Your task to perform on an android device: turn on improve location accuracy Image 0: 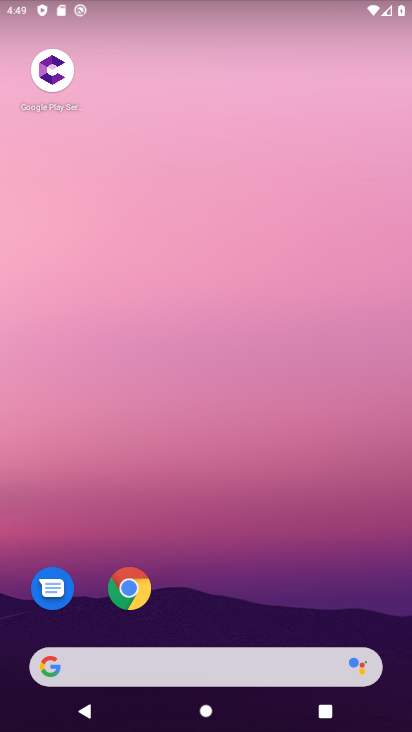
Step 0: drag from (253, 622) to (180, 97)
Your task to perform on an android device: turn on improve location accuracy Image 1: 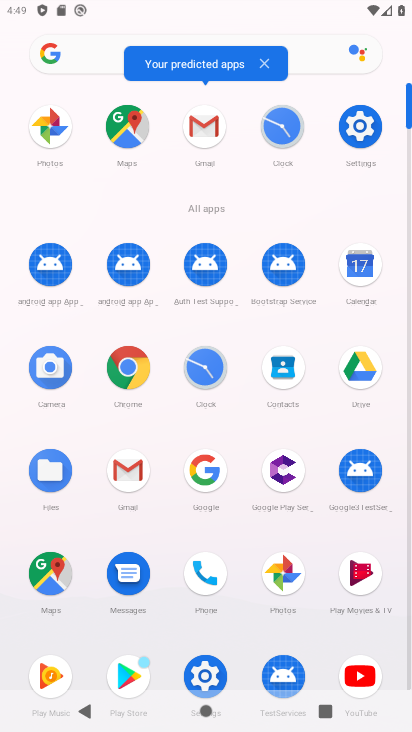
Step 1: click (377, 144)
Your task to perform on an android device: turn on improve location accuracy Image 2: 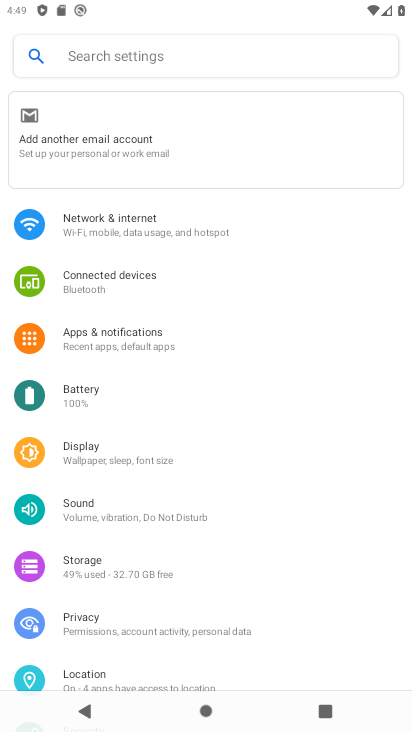
Step 2: click (232, 687)
Your task to perform on an android device: turn on improve location accuracy Image 3: 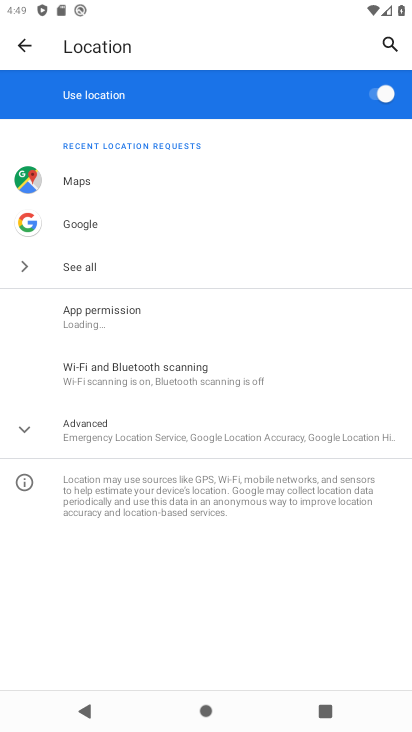
Step 3: click (199, 431)
Your task to perform on an android device: turn on improve location accuracy Image 4: 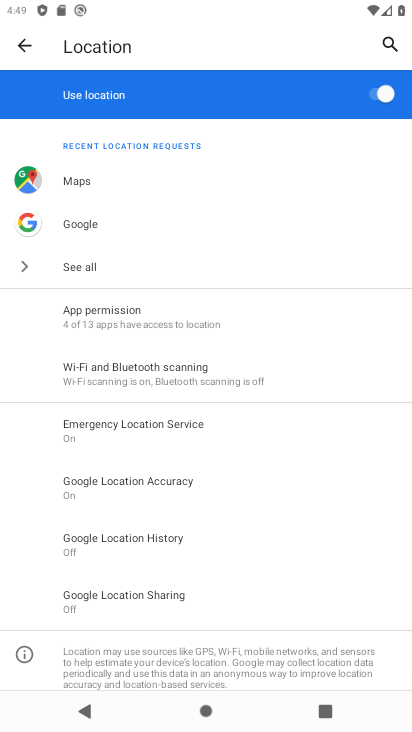
Step 4: click (228, 484)
Your task to perform on an android device: turn on improve location accuracy Image 5: 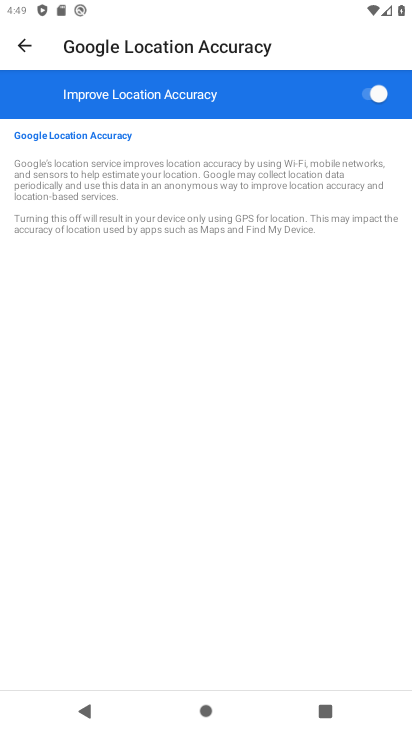
Step 5: task complete